Your task to perform on an android device: What is the recent news? Image 0: 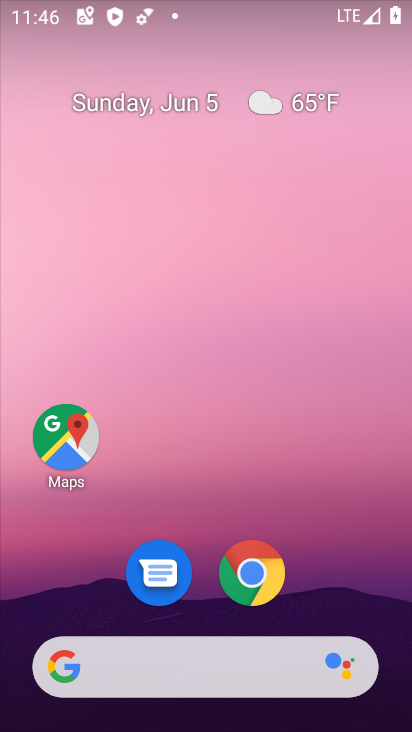
Step 0: drag from (227, 525) to (341, 34)
Your task to perform on an android device: What is the recent news? Image 1: 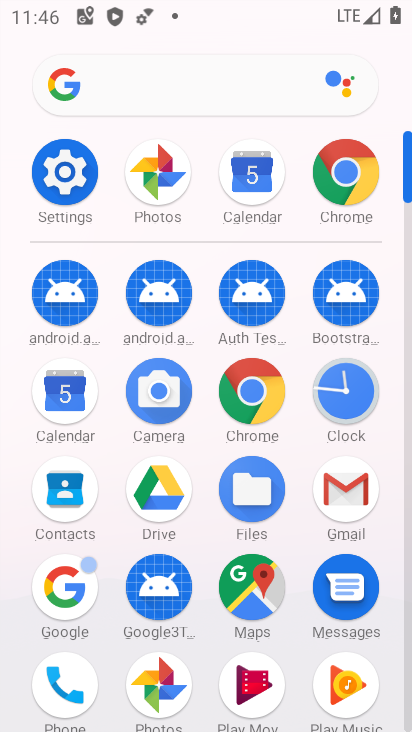
Step 1: drag from (199, 243) to (192, 84)
Your task to perform on an android device: What is the recent news? Image 2: 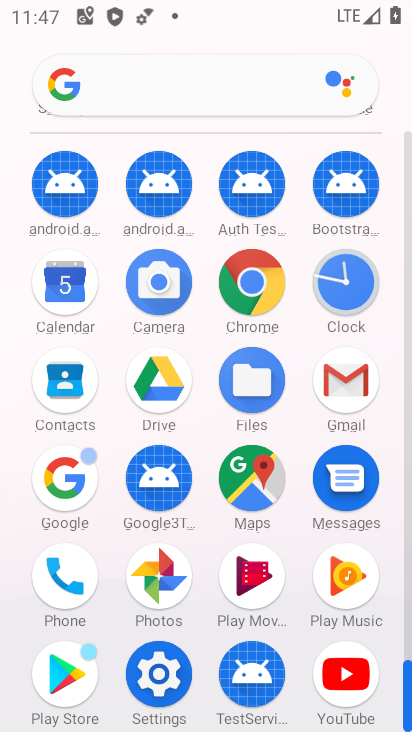
Step 2: drag from (207, 153) to (213, 244)
Your task to perform on an android device: What is the recent news? Image 3: 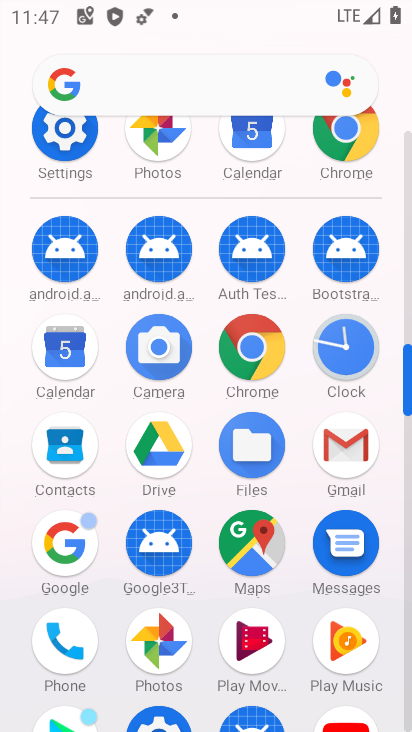
Step 3: click (65, 545)
Your task to perform on an android device: What is the recent news? Image 4: 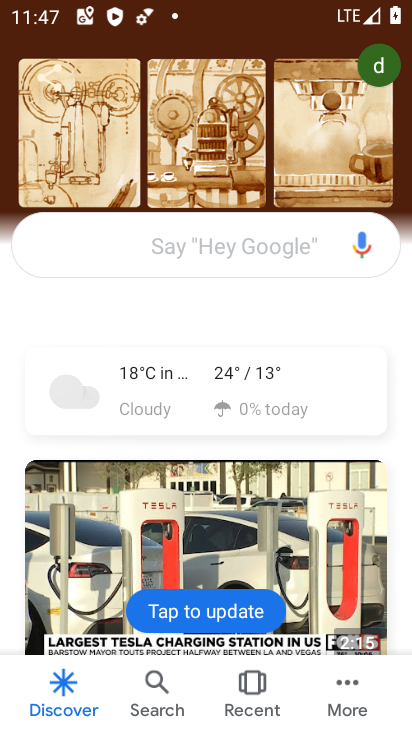
Step 4: task complete